Your task to perform on an android device: Show me popular videos on Youtube Image 0: 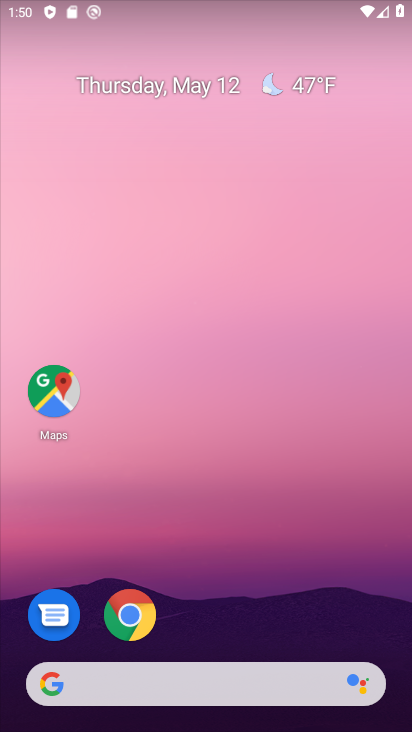
Step 0: drag from (254, 589) to (227, 111)
Your task to perform on an android device: Show me popular videos on Youtube Image 1: 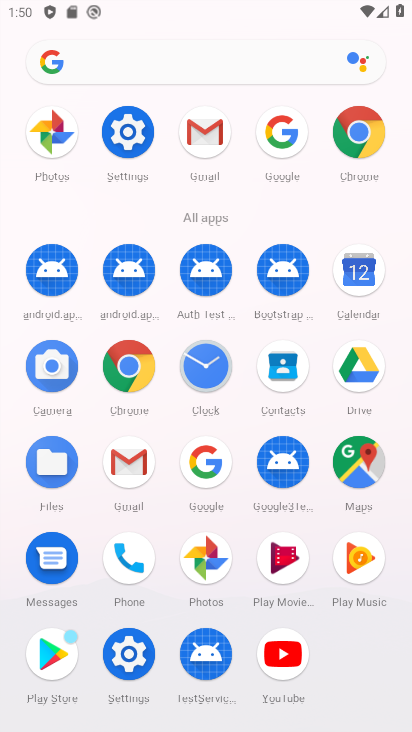
Step 1: click (282, 651)
Your task to perform on an android device: Show me popular videos on Youtube Image 2: 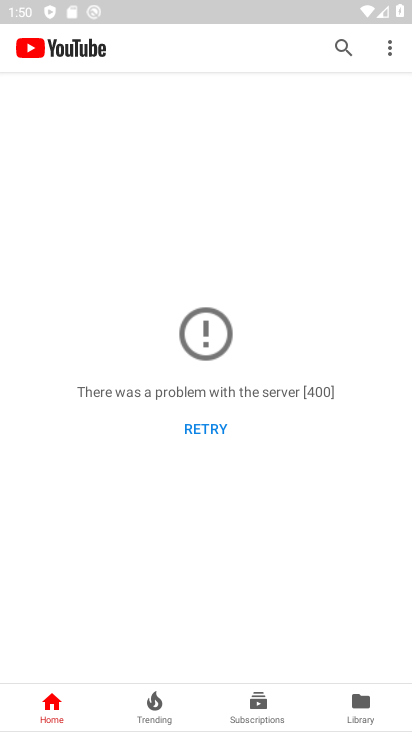
Step 2: click (156, 715)
Your task to perform on an android device: Show me popular videos on Youtube Image 3: 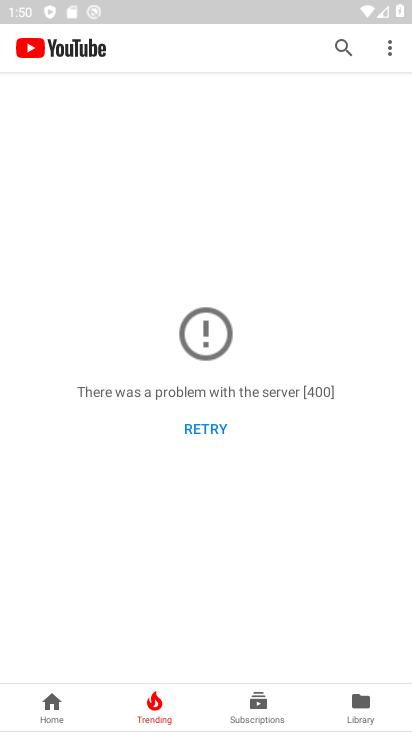
Step 3: task complete